Your task to perform on an android device: toggle wifi Image 0: 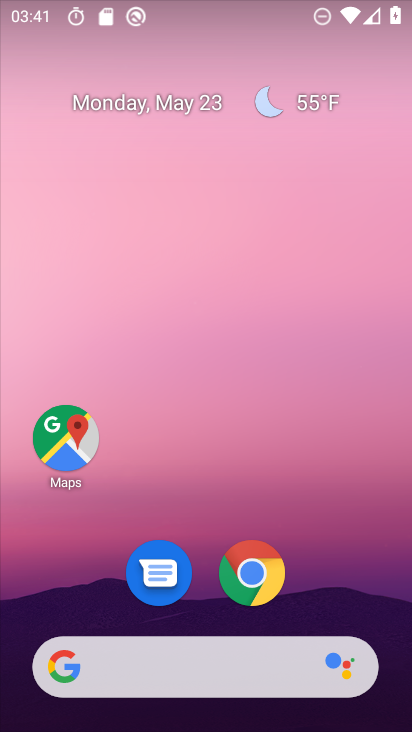
Step 0: drag from (318, 609) to (249, 37)
Your task to perform on an android device: toggle wifi Image 1: 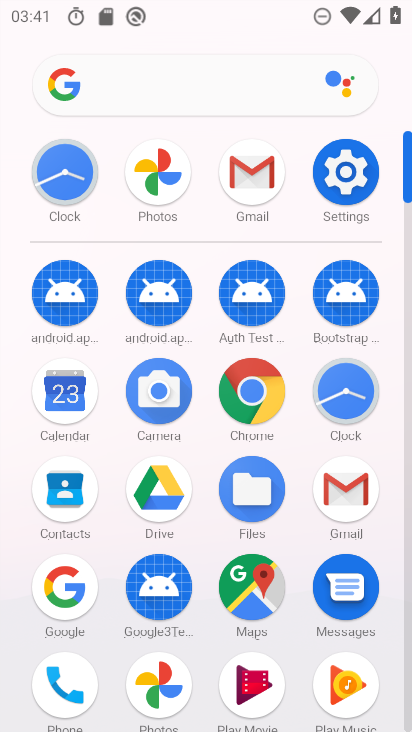
Step 1: click (347, 180)
Your task to perform on an android device: toggle wifi Image 2: 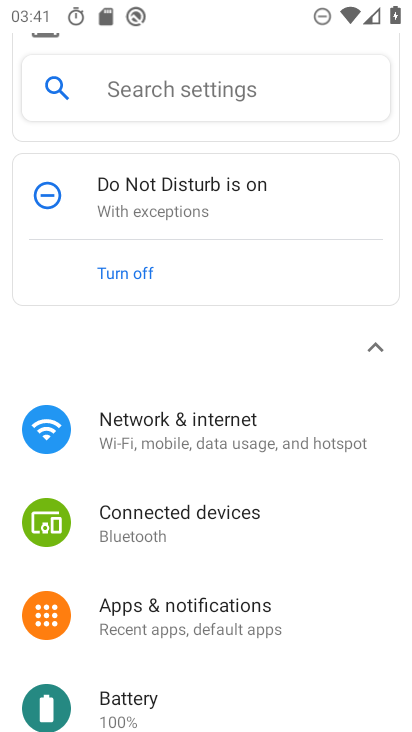
Step 2: click (238, 431)
Your task to perform on an android device: toggle wifi Image 3: 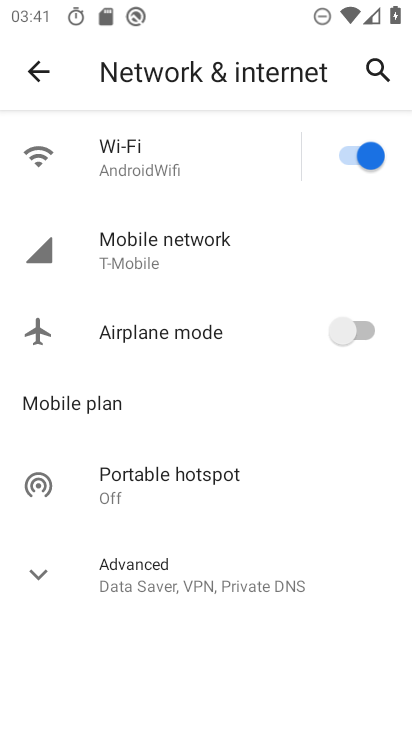
Step 3: click (163, 147)
Your task to perform on an android device: toggle wifi Image 4: 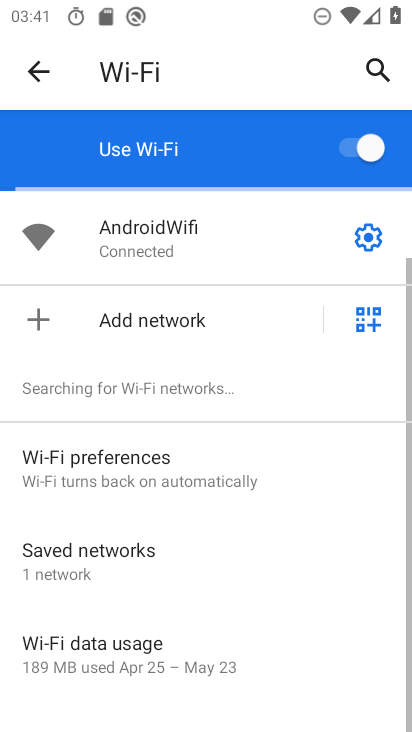
Step 4: click (344, 153)
Your task to perform on an android device: toggle wifi Image 5: 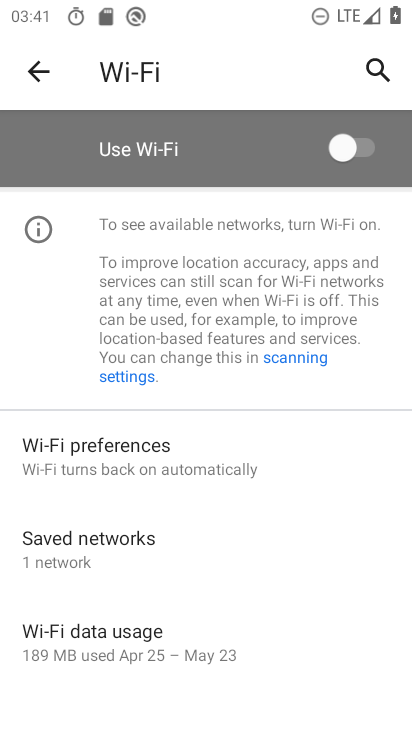
Step 5: task complete